Your task to perform on an android device: What's the weather going to be this weekend? Image 0: 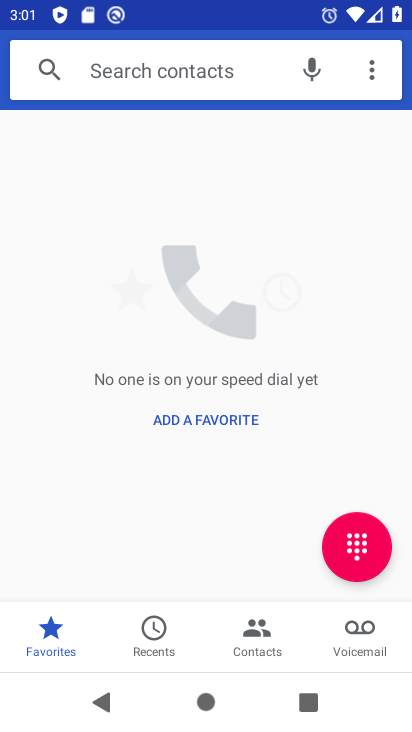
Step 0: press back button
Your task to perform on an android device: What's the weather going to be this weekend? Image 1: 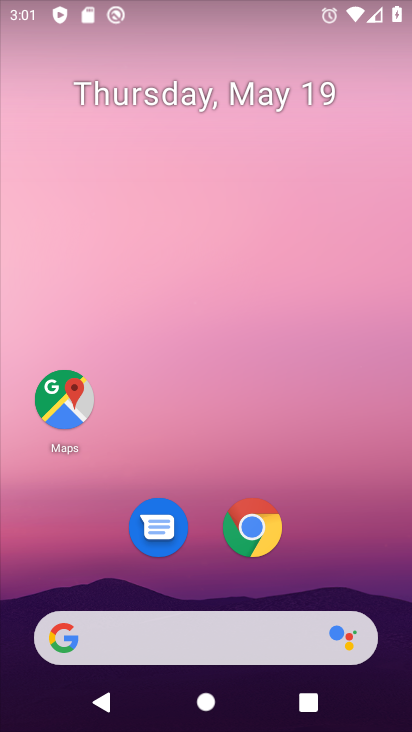
Step 1: click (165, 637)
Your task to perform on an android device: What's the weather going to be this weekend? Image 2: 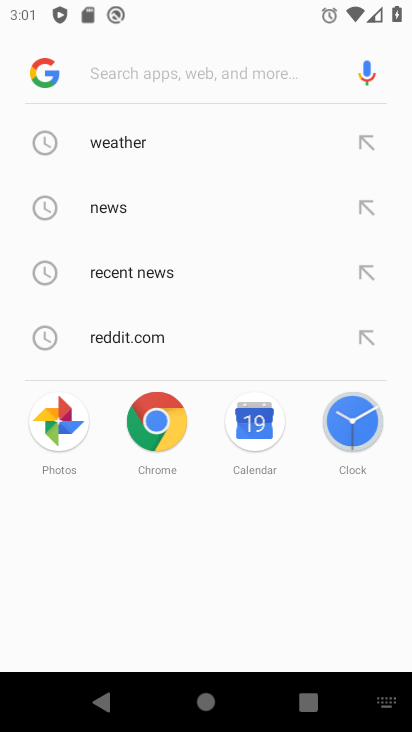
Step 2: click (111, 136)
Your task to perform on an android device: What's the weather going to be this weekend? Image 3: 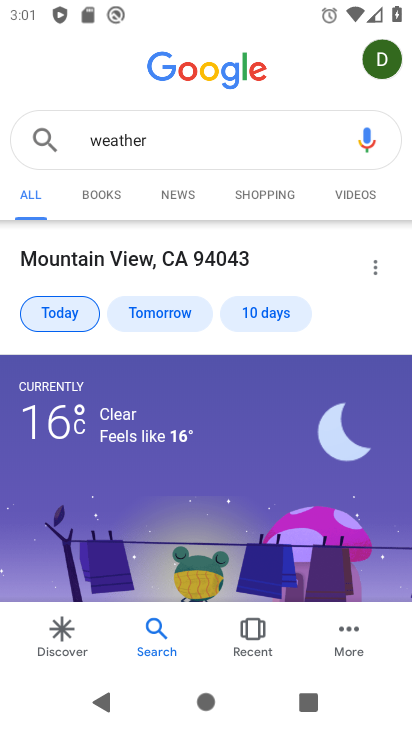
Step 3: click (280, 312)
Your task to perform on an android device: What's the weather going to be this weekend? Image 4: 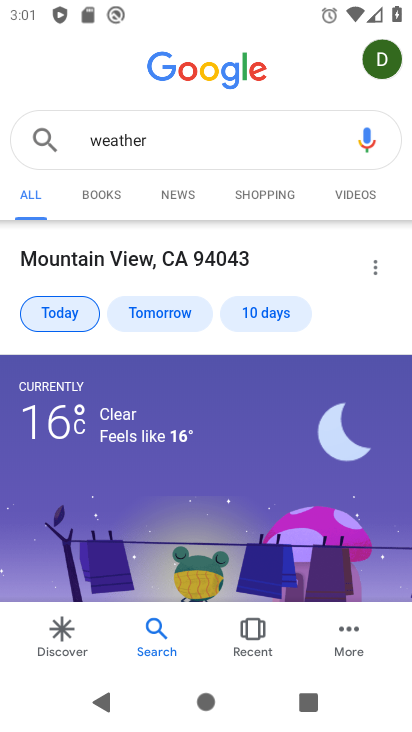
Step 4: task complete